Your task to perform on an android device: toggle show notifications on the lock screen Image 0: 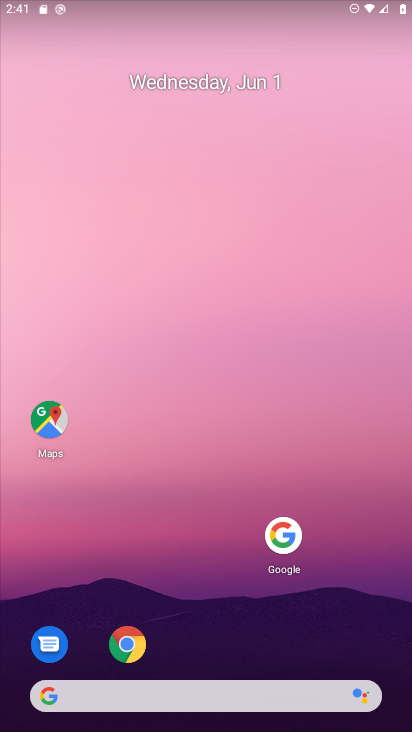
Step 0: drag from (137, 687) to (268, 212)
Your task to perform on an android device: toggle show notifications on the lock screen Image 1: 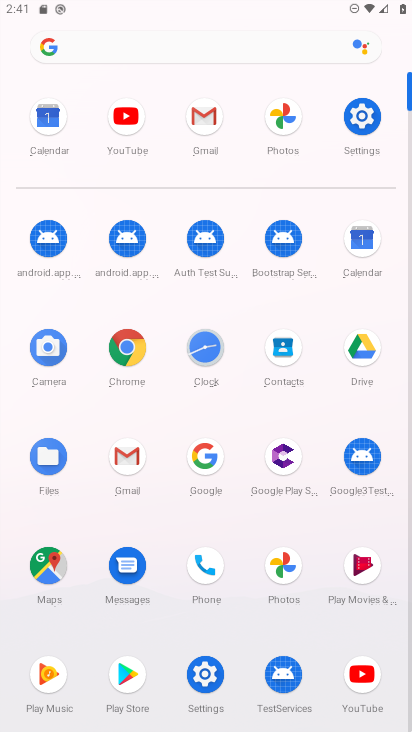
Step 1: click (371, 114)
Your task to perform on an android device: toggle show notifications on the lock screen Image 2: 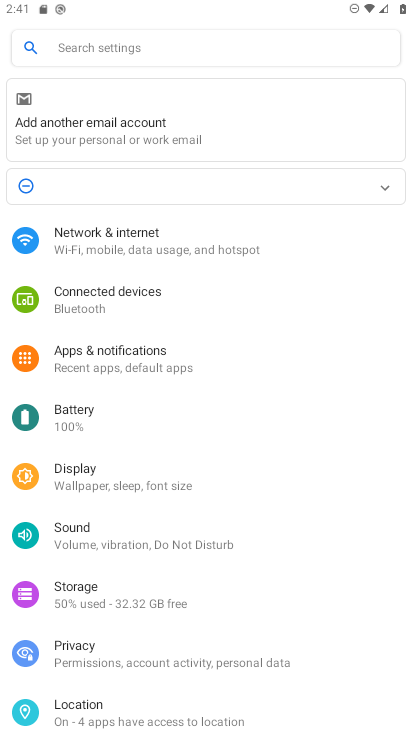
Step 2: click (144, 357)
Your task to perform on an android device: toggle show notifications on the lock screen Image 3: 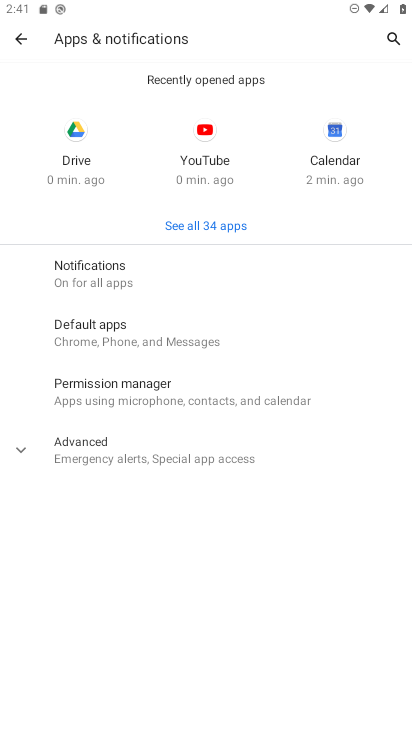
Step 3: click (131, 277)
Your task to perform on an android device: toggle show notifications on the lock screen Image 4: 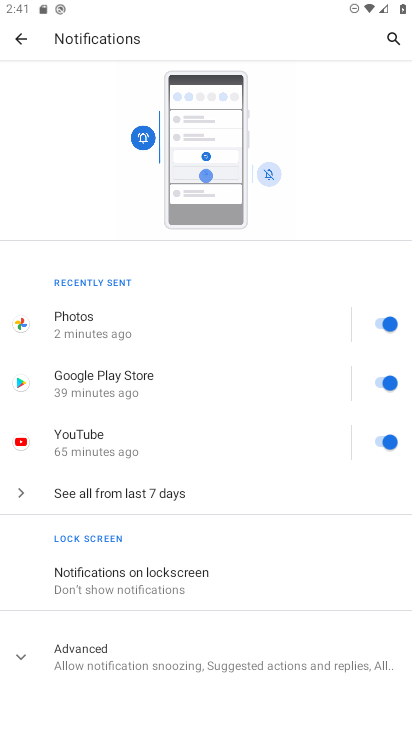
Step 4: drag from (281, 543) to (309, 322)
Your task to perform on an android device: toggle show notifications on the lock screen Image 5: 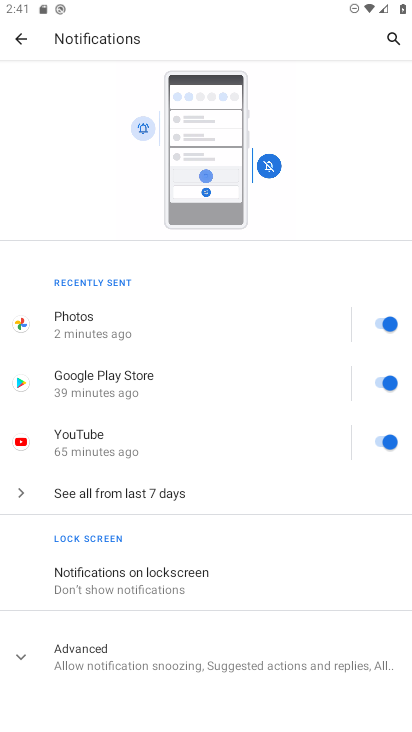
Step 5: click (182, 582)
Your task to perform on an android device: toggle show notifications on the lock screen Image 6: 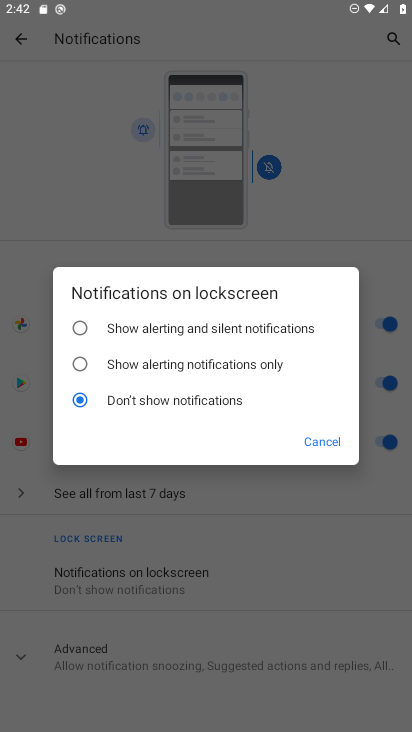
Step 6: click (77, 324)
Your task to perform on an android device: toggle show notifications on the lock screen Image 7: 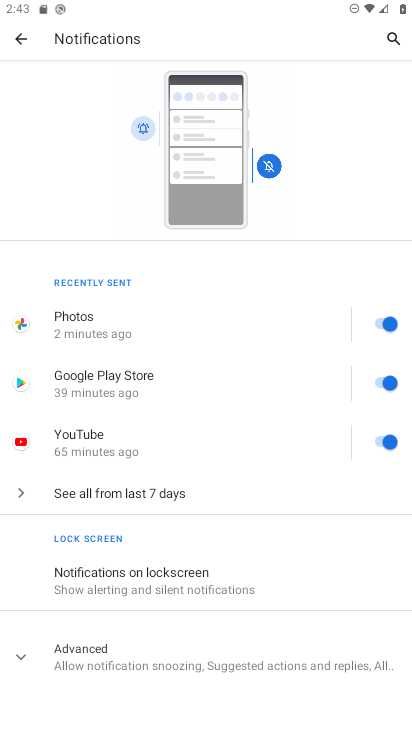
Step 7: task complete